Your task to perform on an android device: open a new tab in the chrome app Image 0: 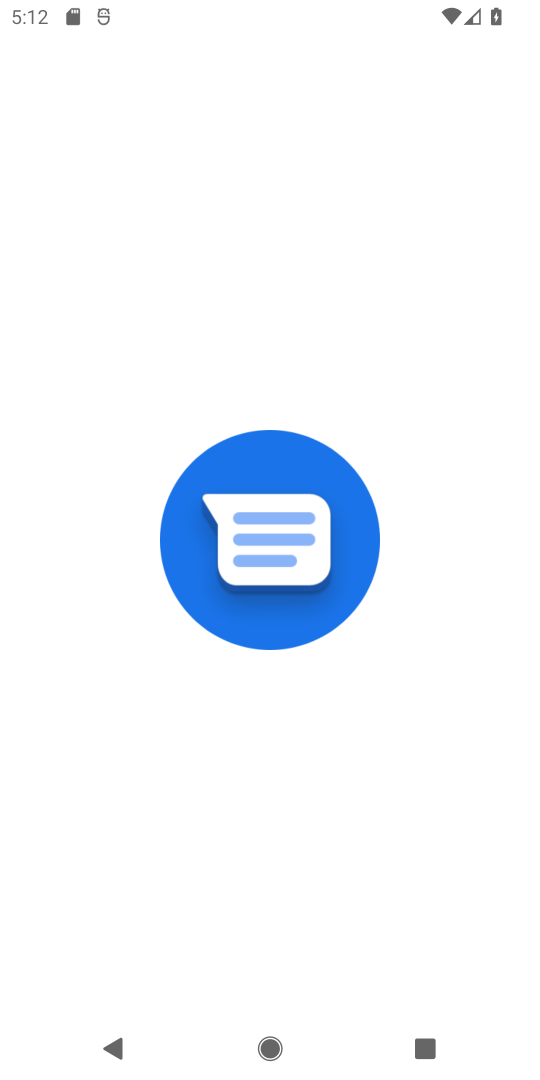
Step 0: press home button
Your task to perform on an android device: open a new tab in the chrome app Image 1: 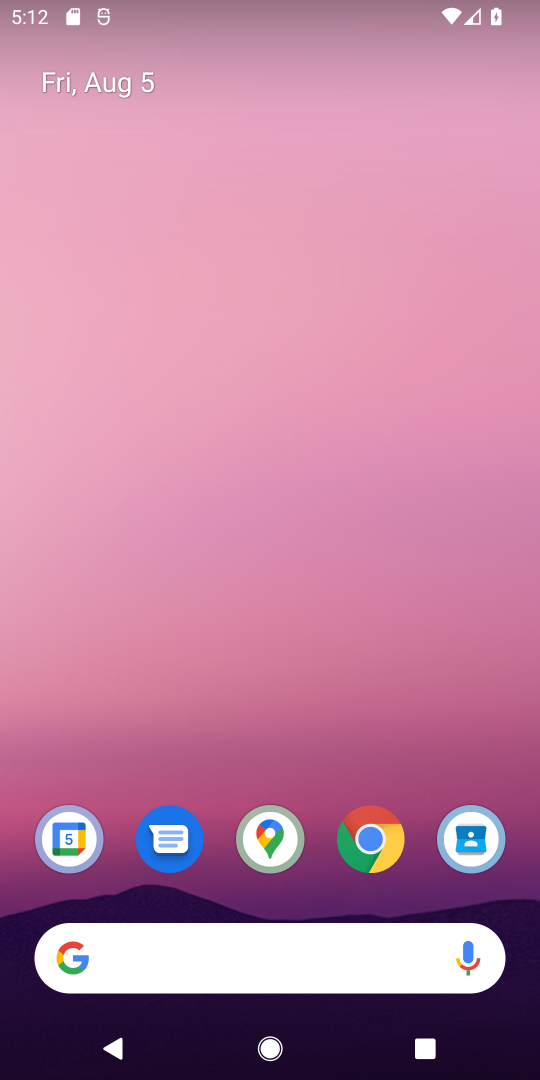
Step 1: click (358, 855)
Your task to perform on an android device: open a new tab in the chrome app Image 2: 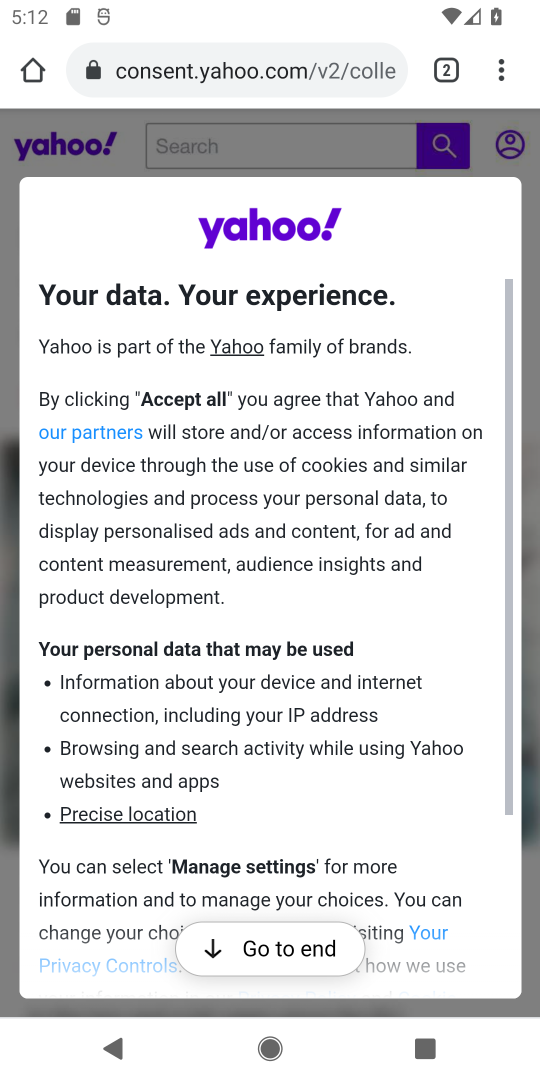
Step 2: click (435, 68)
Your task to perform on an android device: open a new tab in the chrome app Image 3: 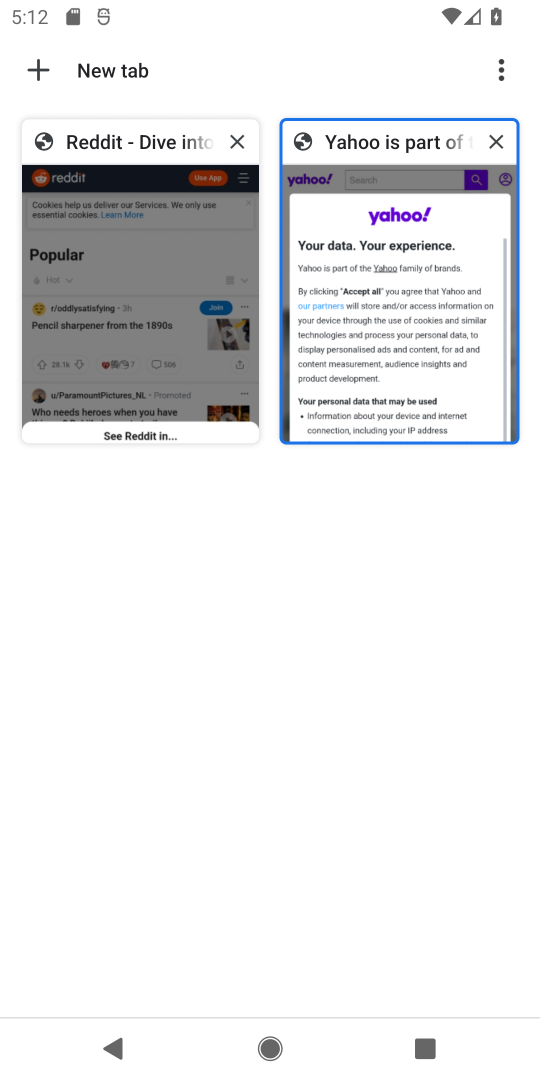
Step 3: click (44, 67)
Your task to perform on an android device: open a new tab in the chrome app Image 4: 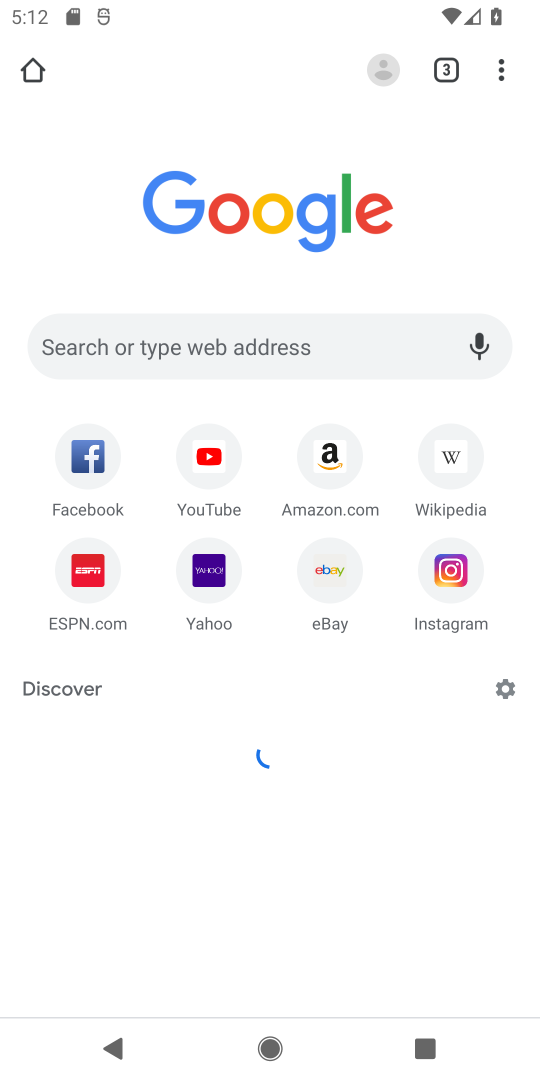
Step 4: task complete